Your task to perform on an android device: add a contact Image 0: 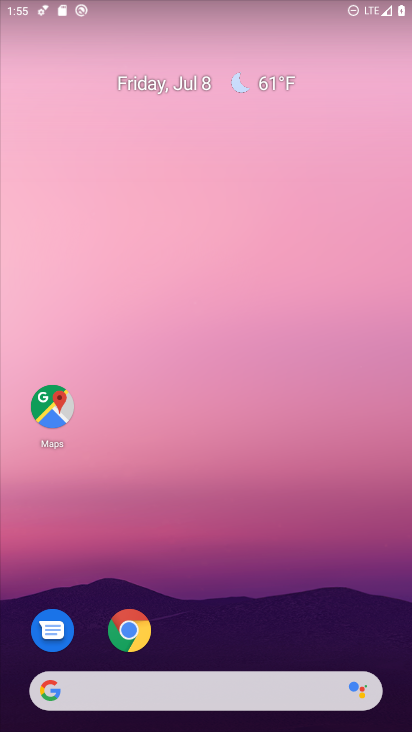
Step 0: drag from (367, 640) to (245, 4)
Your task to perform on an android device: add a contact Image 1: 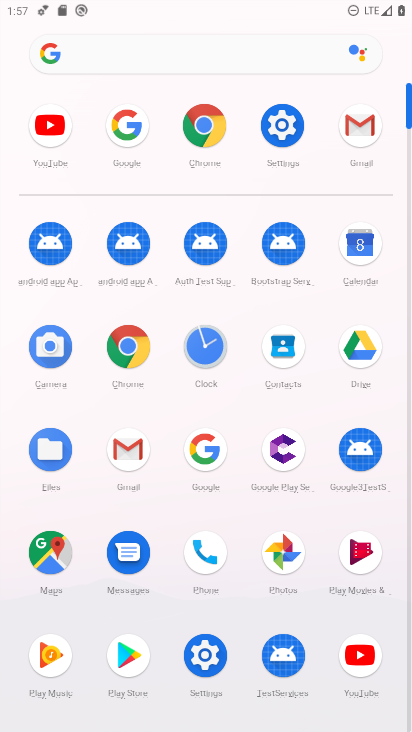
Step 1: click (289, 339)
Your task to perform on an android device: add a contact Image 2: 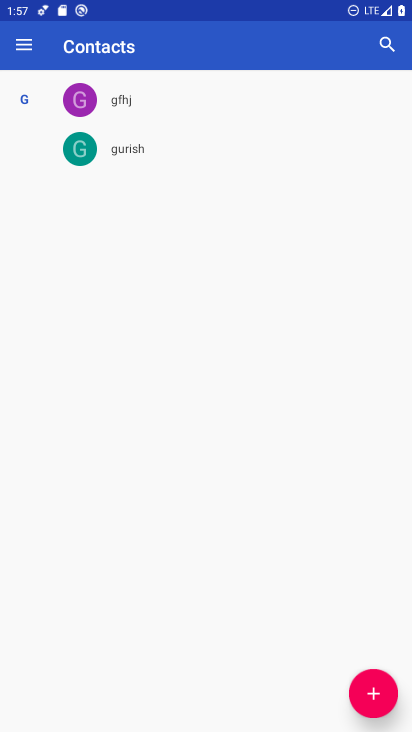
Step 2: click (365, 680)
Your task to perform on an android device: add a contact Image 3: 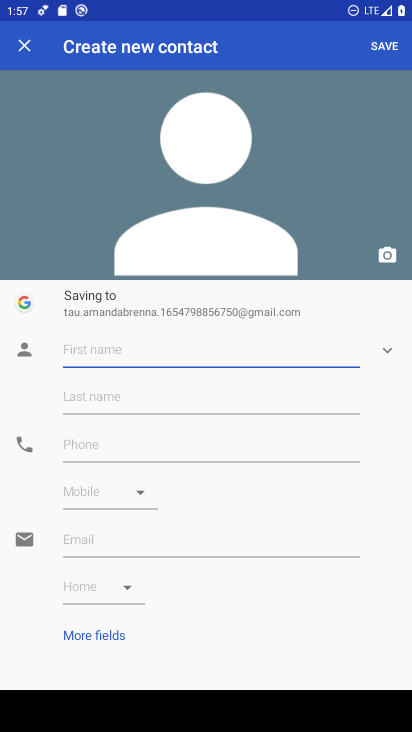
Step 3: type "spinner"
Your task to perform on an android device: add a contact Image 4: 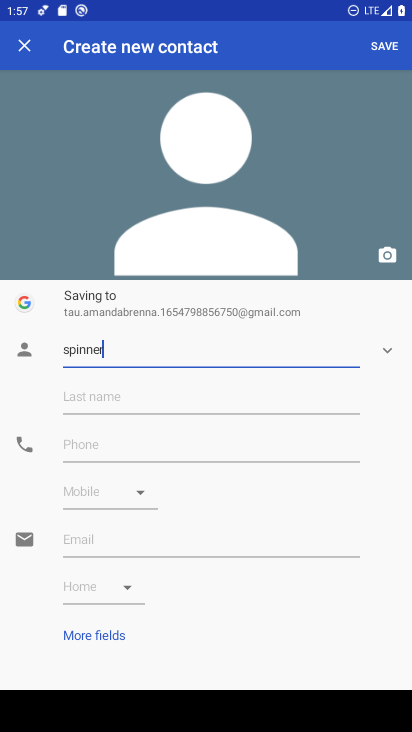
Step 4: click (380, 45)
Your task to perform on an android device: add a contact Image 5: 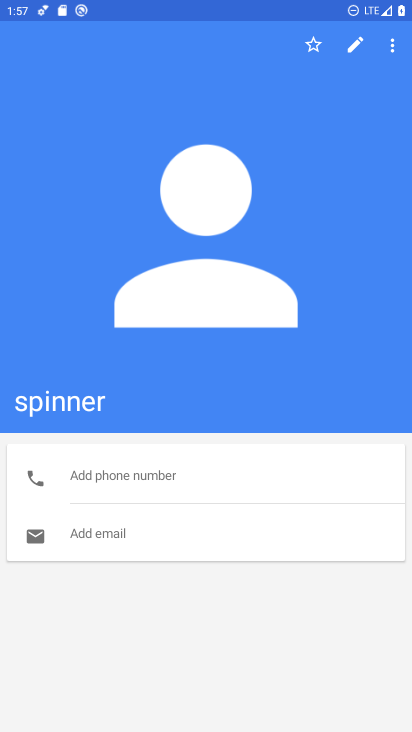
Step 5: task complete